Your task to perform on an android device: turn on sleep mode Image 0: 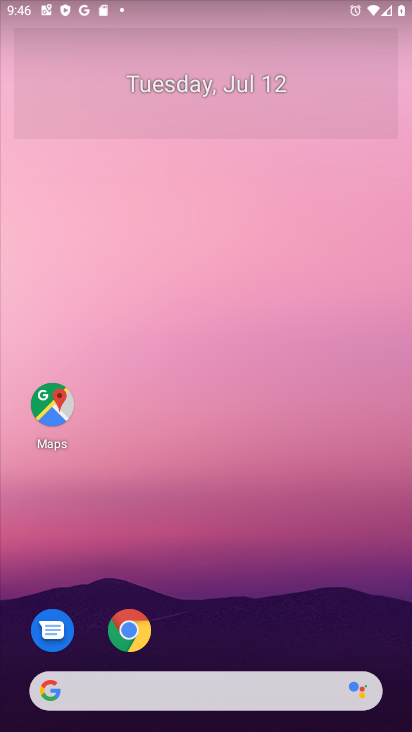
Step 0: drag from (234, 599) to (196, 261)
Your task to perform on an android device: turn on sleep mode Image 1: 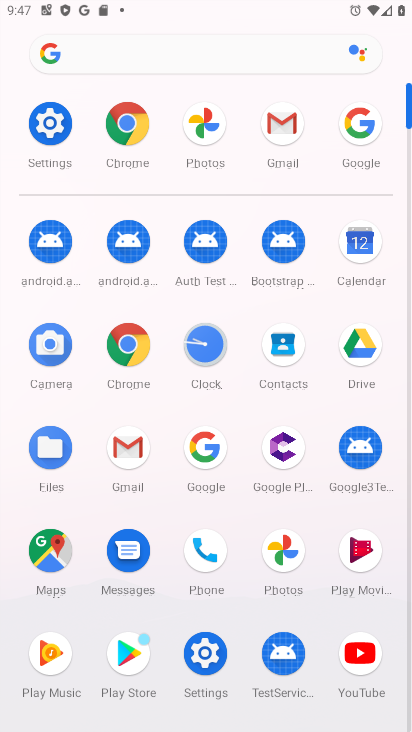
Step 1: click (49, 123)
Your task to perform on an android device: turn on sleep mode Image 2: 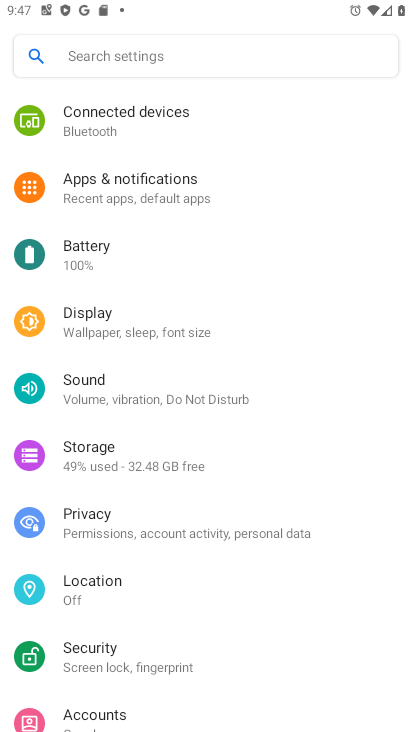
Step 2: click (136, 315)
Your task to perform on an android device: turn on sleep mode Image 3: 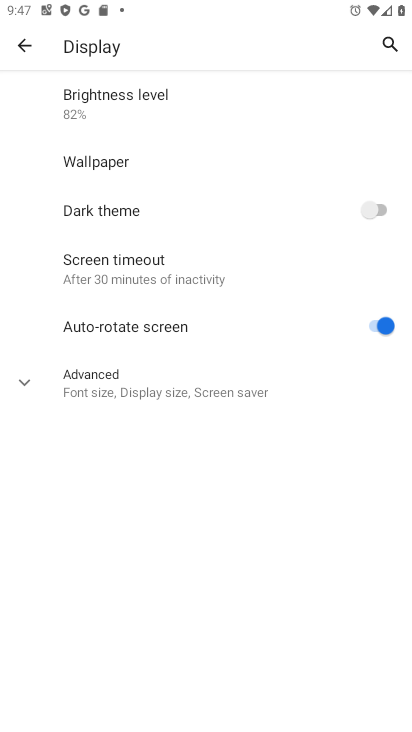
Step 3: click (112, 260)
Your task to perform on an android device: turn on sleep mode Image 4: 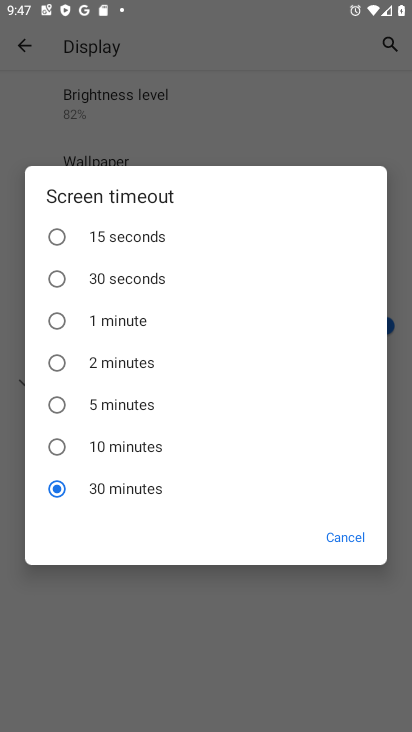
Step 4: task complete